Your task to perform on an android device: Open calendar and show me the fourth week of next month Image 0: 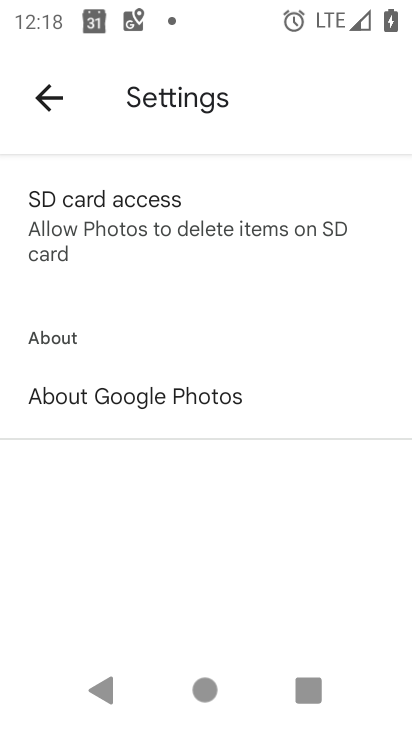
Step 0: press home button
Your task to perform on an android device: Open calendar and show me the fourth week of next month Image 1: 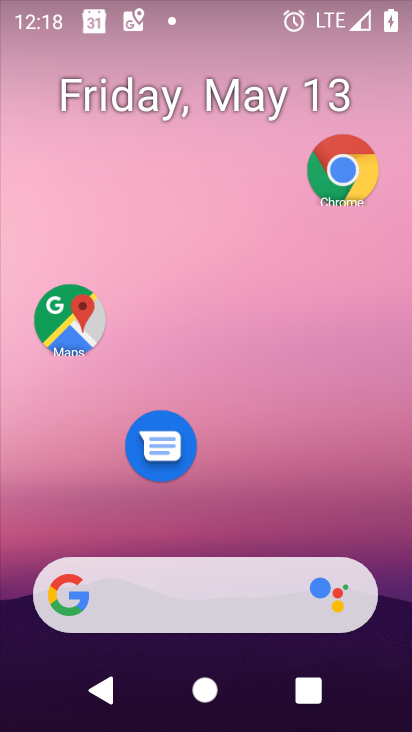
Step 1: drag from (254, 593) to (299, 14)
Your task to perform on an android device: Open calendar and show me the fourth week of next month Image 2: 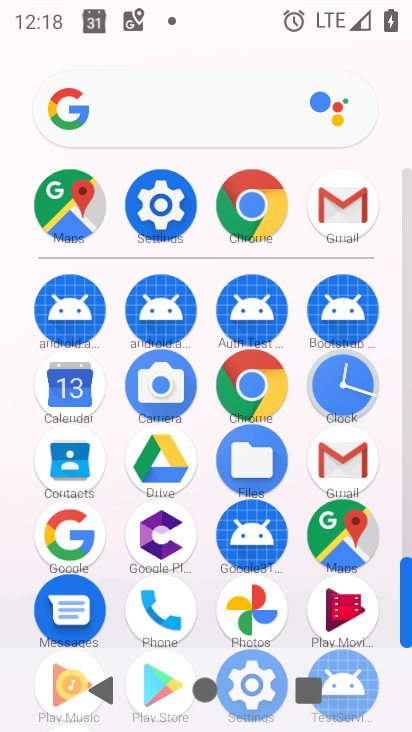
Step 2: click (68, 387)
Your task to perform on an android device: Open calendar and show me the fourth week of next month Image 3: 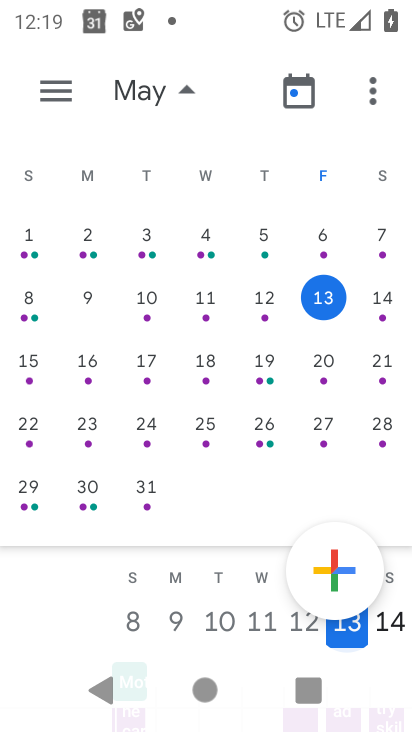
Step 3: drag from (348, 378) to (0, 419)
Your task to perform on an android device: Open calendar and show me the fourth week of next month Image 4: 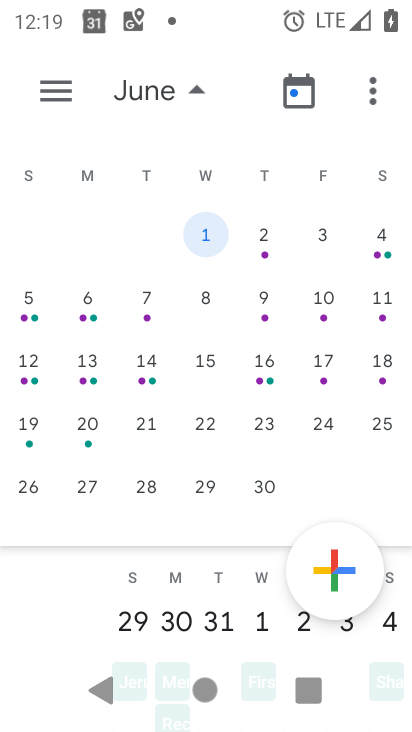
Step 4: click (263, 434)
Your task to perform on an android device: Open calendar and show me the fourth week of next month Image 5: 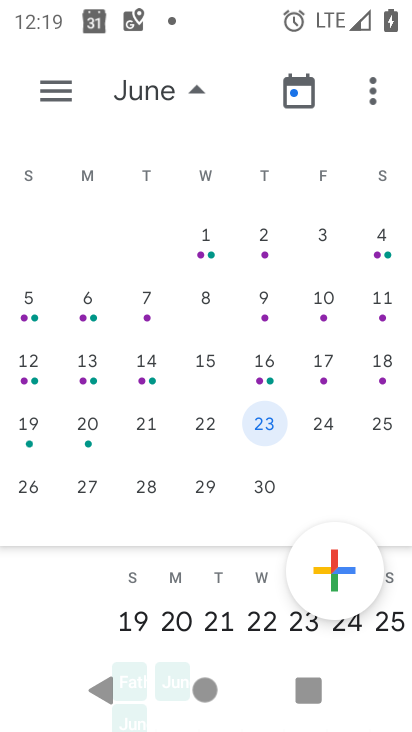
Step 5: click (52, 83)
Your task to perform on an android device: Open calendar and show me the fourth week of next month Image 6: 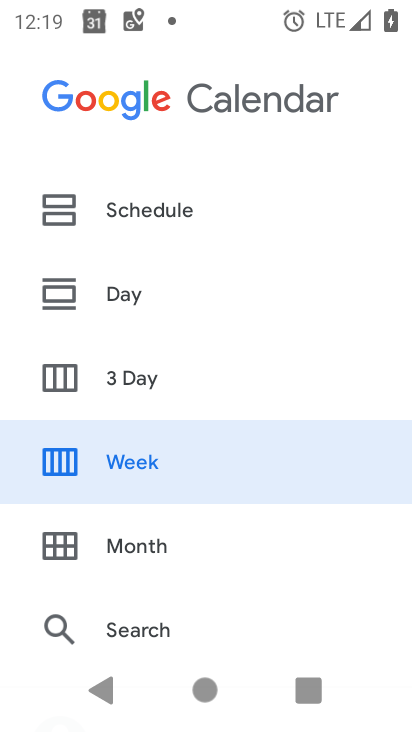
Step 6: click (113, 467)
Your task to perform on an android device: Open calendar and show me the fourth week of next month Image 7: 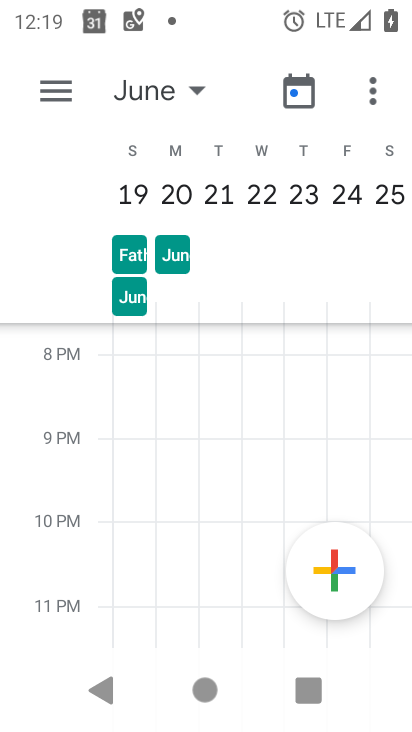
Step 7: task complete